Your task to perform on an android device: Open the phone app and click the voicemail tab. Image 0: 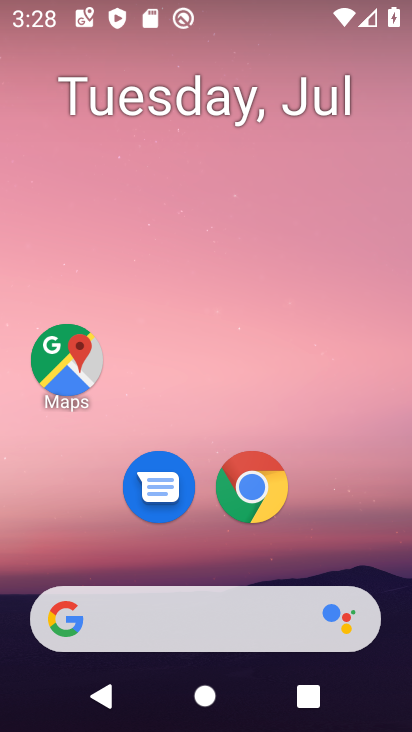
Step 0: drag from (92, 497) to (289, 11)
Your task to perform on an android device: Open the phone app and click the voicemail tab. Image 1: 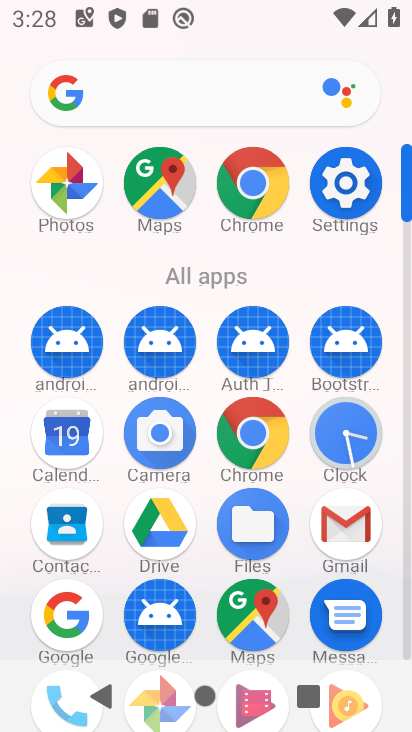
Step 1: drag from (103, 613) to (207, 183)
Your task to perform on an android device: Open the phone app and click the voicemail tab. Image 2: 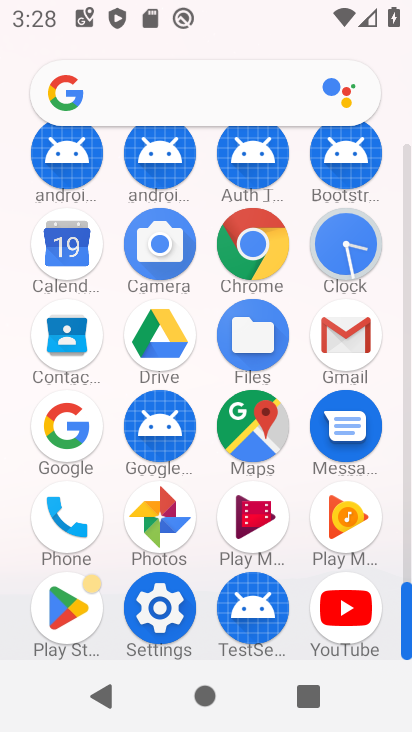
Step 2: click (73, 517)
Your task to perform on an android device: Open the phone app and click the voicemail tab. Image 3: 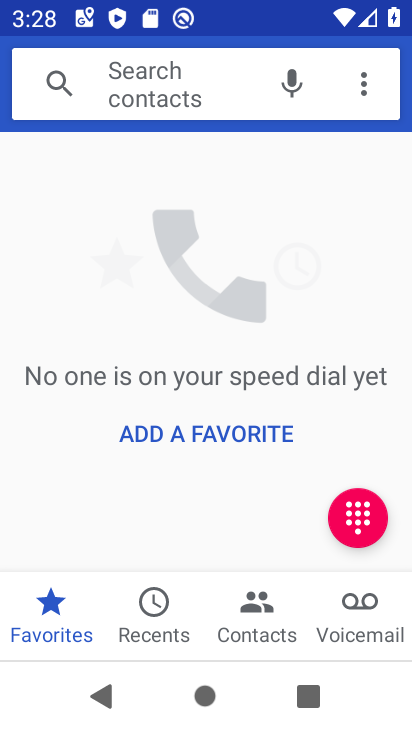
Step 3: click (364, 618)
Your task to perform on an android device: Open the phone app and click the voicemail tab. Image 4: 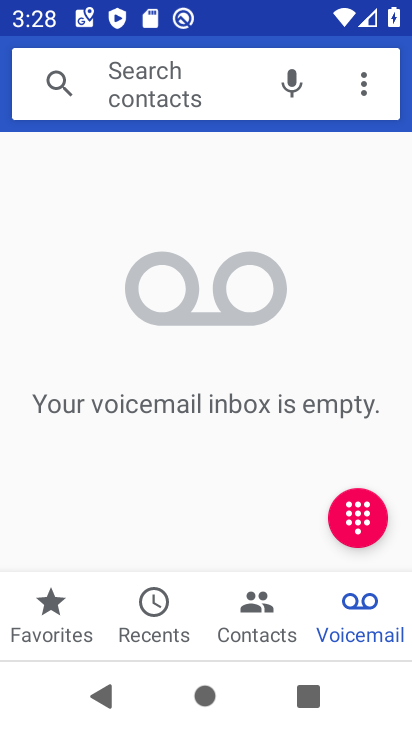
Step 4: task complete